Your task to perform on an android device: Search for sushi restaurants on Maps Image 0: 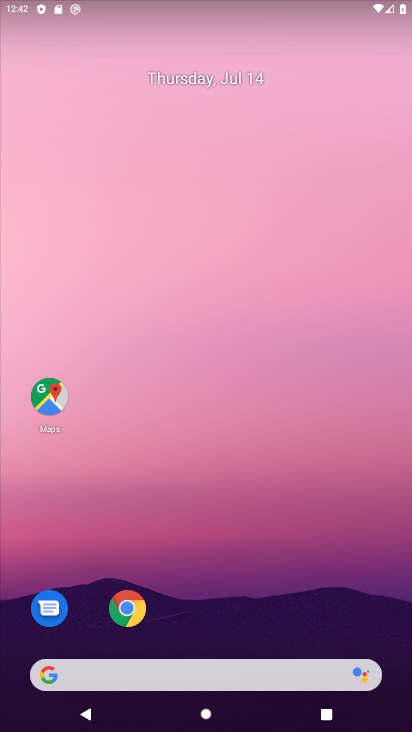
Step 0: drag from (175, 629) to (156, 724)
Your task to perform on an android device: Search for sushi restaurants on Maps Image 1: 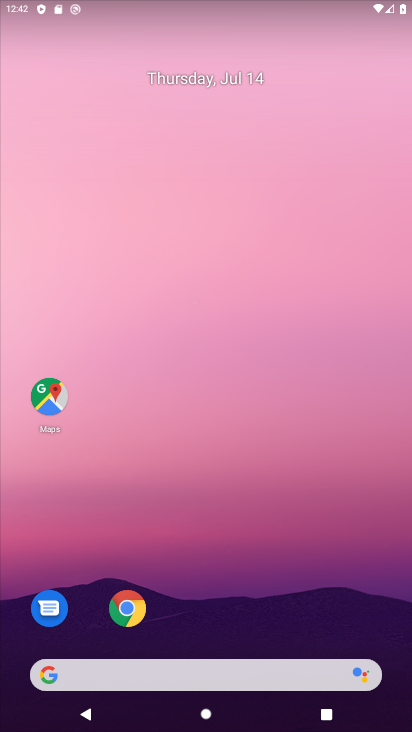
Step 1: drag from (197, 639) to (217, 56)
Your task to perform on an android device: Search for sushi restaurants on Maps Image 2: 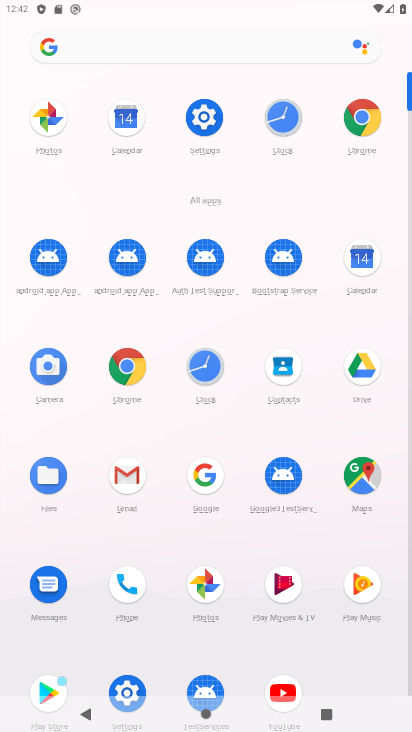
Step 2: click (356, 483)
Your task to perform on an android device: Search for sushi restaurants on Maps Image 3: 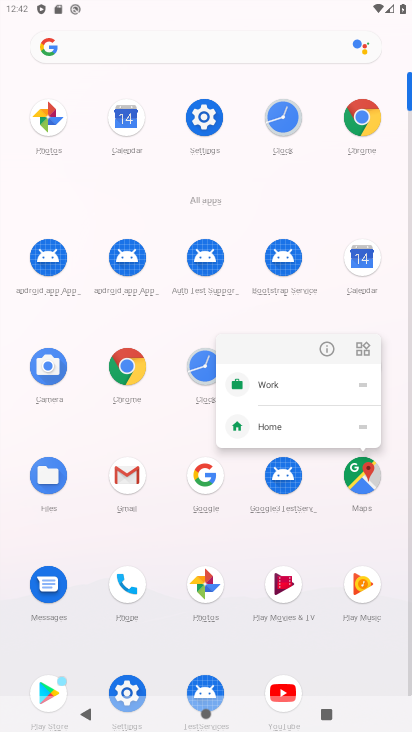
Step 3: click (332, 349)
Your task to perform on an android device: Search for sushi restaurants on Maps Image 4: 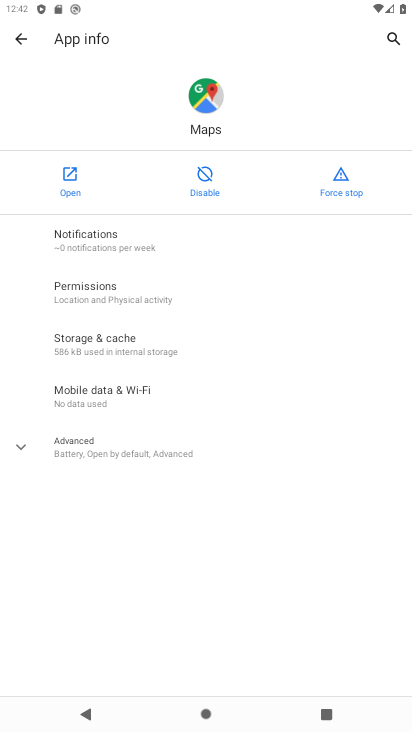
Step 4: click (62, 181)
Your task to perform on an android device: Search for sushi restaurants on Maps Image 5: 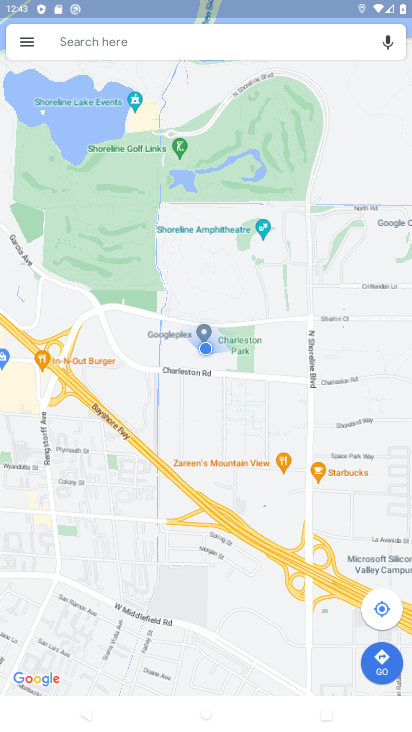
Step 5: drag from (215, 582) to (233, 339)
Your task to perform on an android device: Search for sushi restaurants on Maps Image 6: 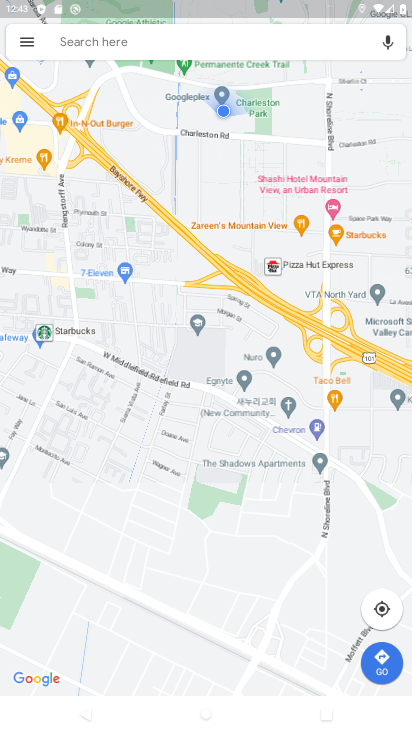
Step 6: click (143, 34)
Your task to perform on an android device: Search for sushi restaurants on Maps Image 7: 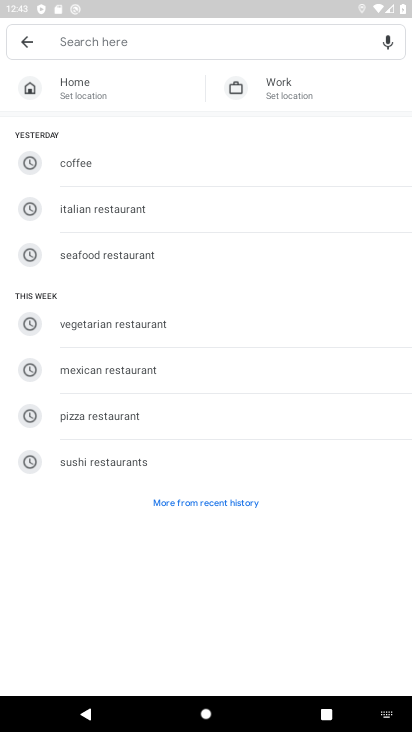
Step 7: type "sushi restaurants"
Your task to perform on an android device: Search for sushi restaurants on Maps Image 8: 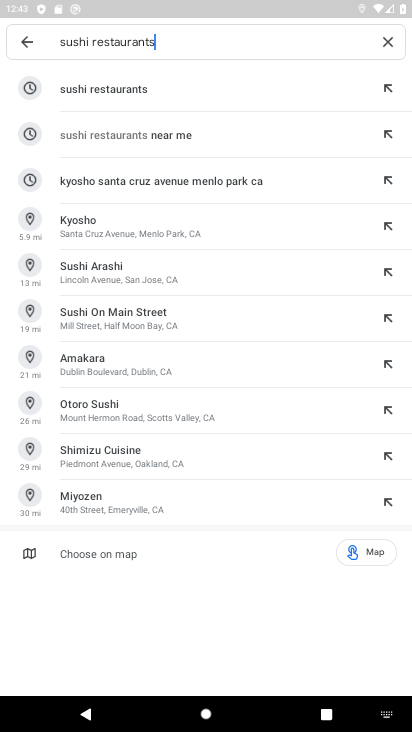
Step 8: click (96, 87)
Your task to perform on an android device: Search for sushi restaurants on Maps Image 9: 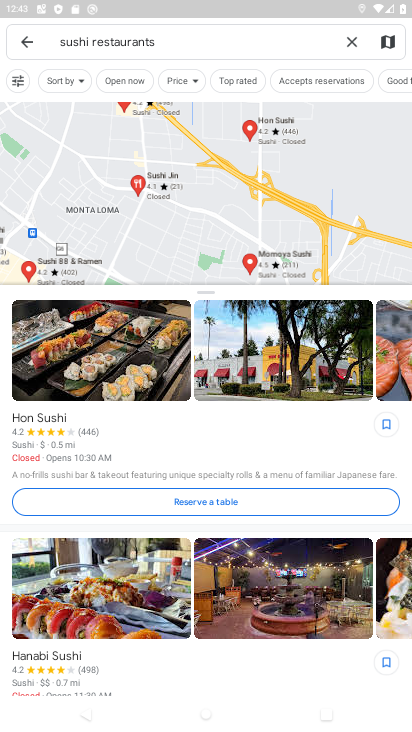
Step 9: task complete